Your task to perform on an android device: star an email in the gmail app Image 0: 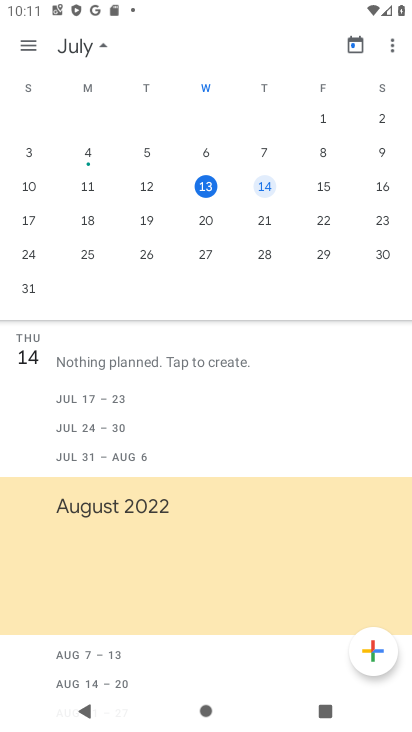
Step 0: press home button
Your task to perform on an android device: star an email in the gmail app Image 1: 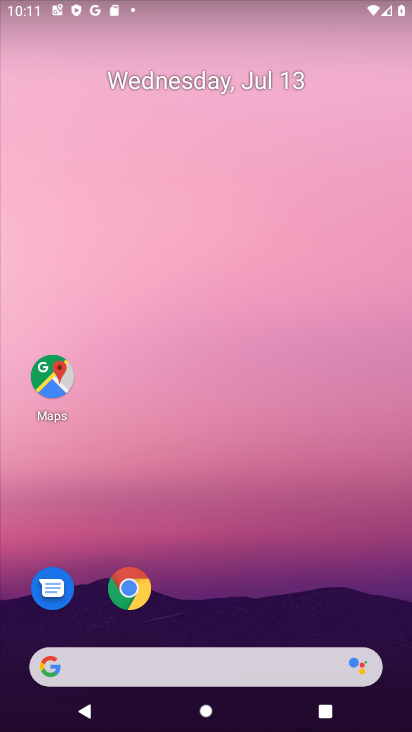
Step 1: drag from (232, 589) to (189, 235)
Your task to perform on an android device: star an email in the gmail app Image 2: 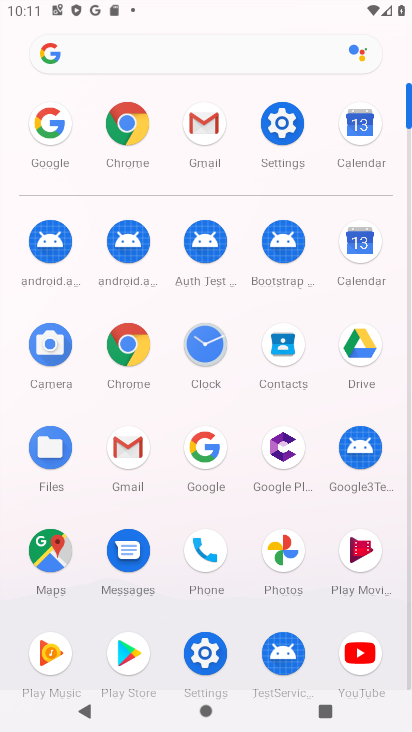
Step 2: click (213, 125)
Your task to perform on an android device: star an email in the gmail app Image 3: 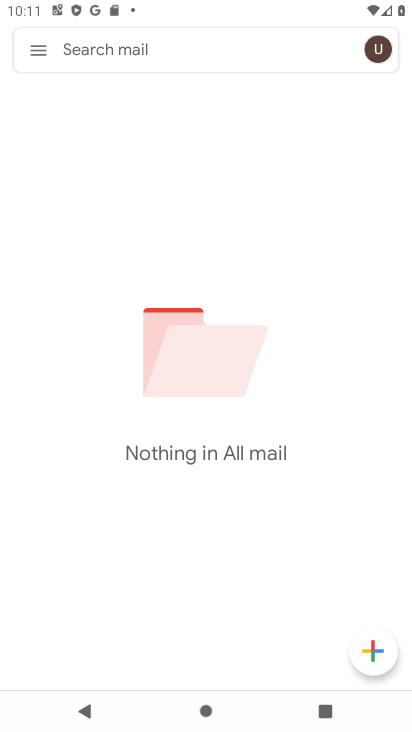
Step 3: task complete